Your task to perform on an android device: turn on showing notifications on the lock screen Image 0: 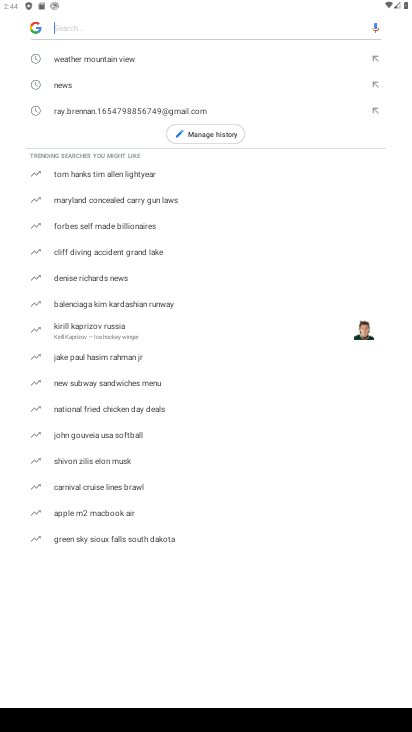
Step 0: press home button
Your task to perform on an android device: turn on showing notifications on the lock screen Image 1: 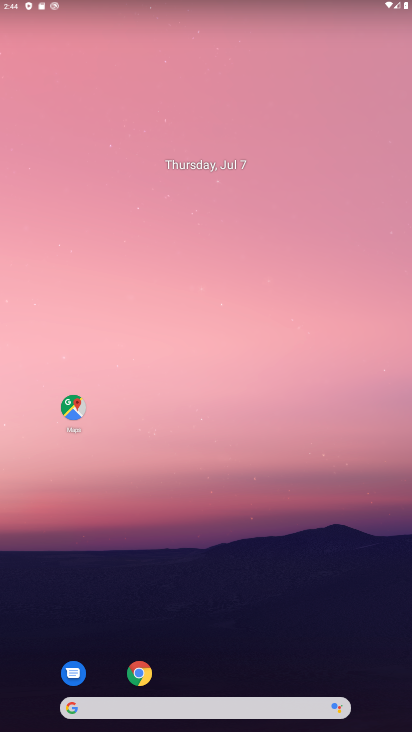
Step 1: drag from (229, 628) to (298, 2)
Your task to perform on an android device: turn on showing notifications on the lock screen Image 2: 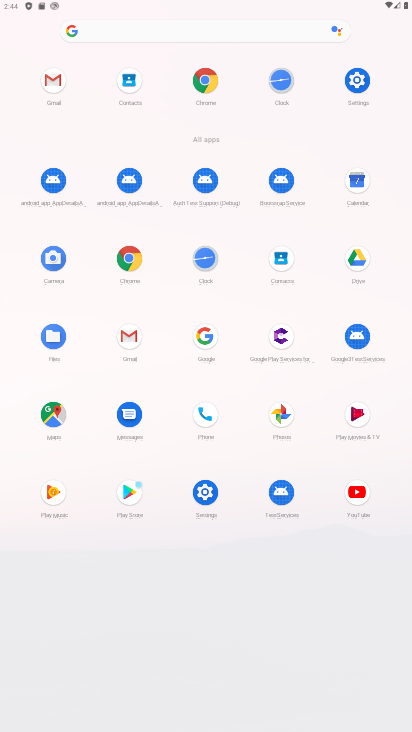
Step 2: click (207, 498)
Your task to perform on an android device: turn on showing notifications on the lock screen Image 3: 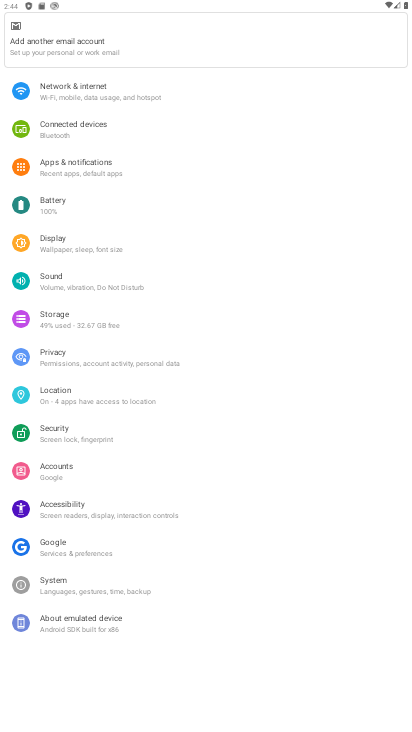
Step 3: click (113, 176)
Your task to perform on an android device: turn on showing notifications on the lock screen Image 4: 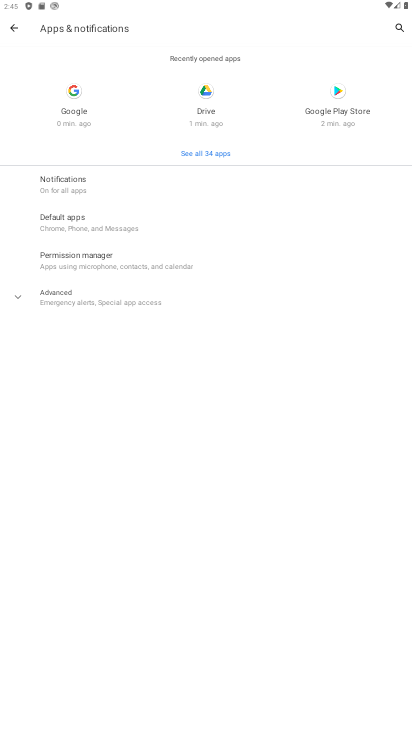
Step 4: click (78, 182)
Your task to perform on an android device: turn on showing notifications on the lock screen Image 5: 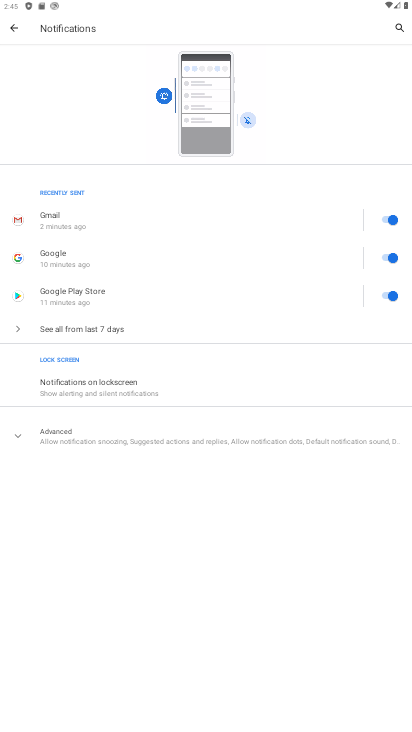
Step 5: click (107, 378)
Your task to perform on an android device: turn on showing notifications on the lock screen Image 6: 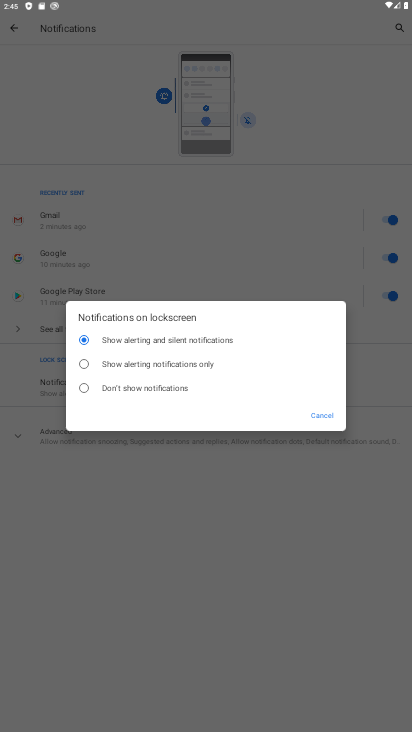
Step 6: task complete